Your task to perform on an android device: turn on notifications settings in the gmail app Image 0: 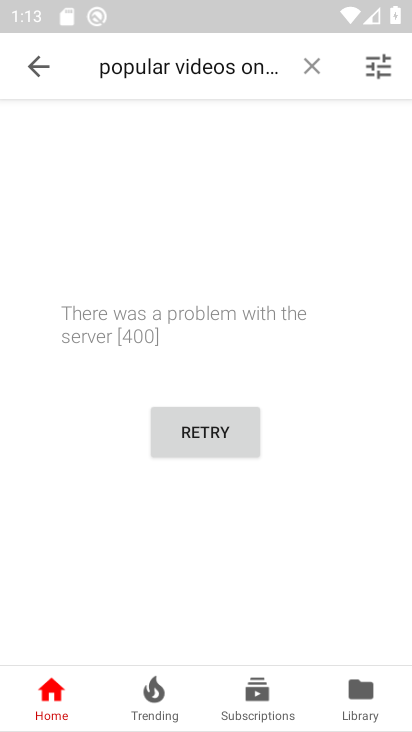
Step 0: press home button
Your task to perform on an android device: turn on notifications settings in the gmail app Image 1: 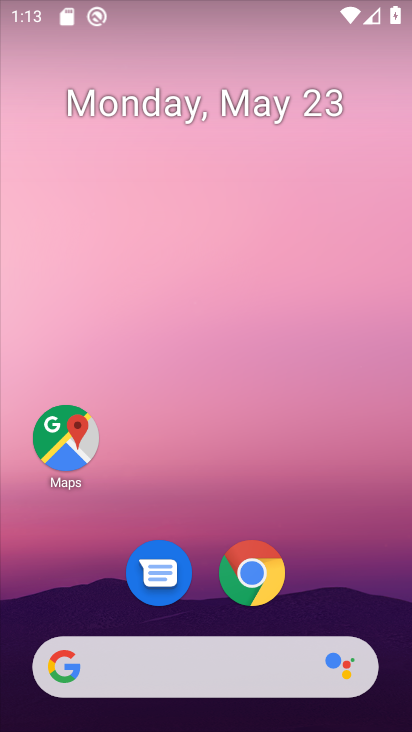
Step 1: drag from (317, 598) to (318, 53)
Your task to perform on an android device: turn on notifications settings in the gmail app Image 2: 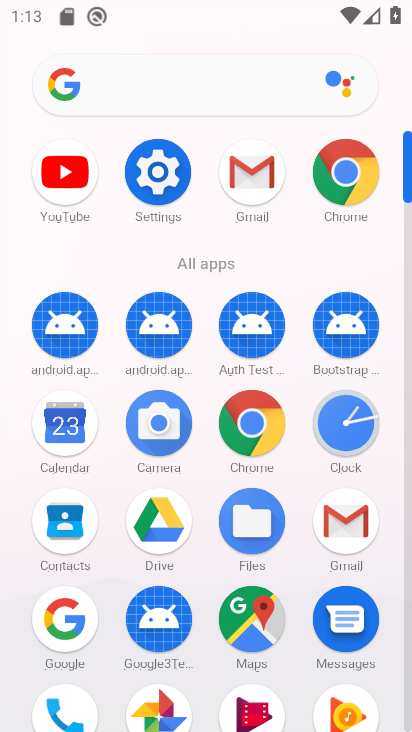
Step 2: click (345, 523)
Your task to perform on an android device: turn on notifications settings in the gmail app Image 3: 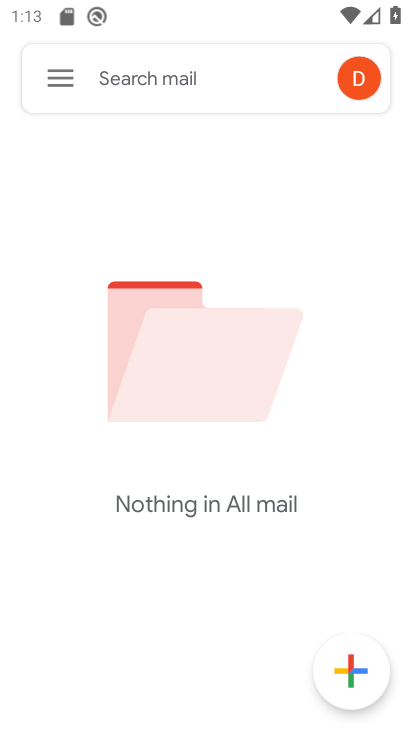
Step 3: click (67, 71)
Your task to perform on an android device: turn on notifications settings in the gmail app Image 4: 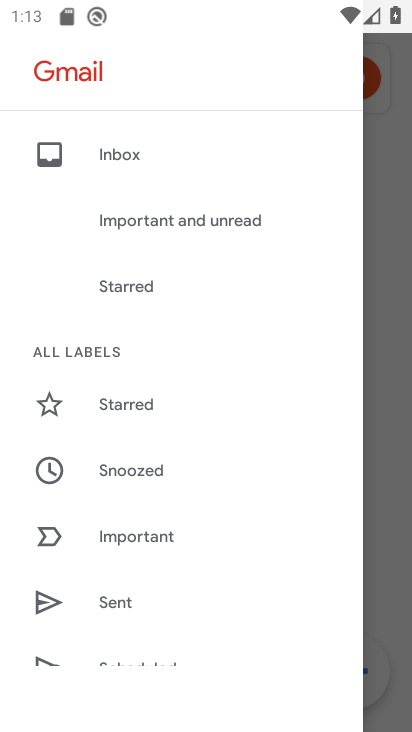
Step 4: drag from (206, 619) to (202, 208)
Your task to perform on an android device: turn on notifications settings in the gmail app Image 5: 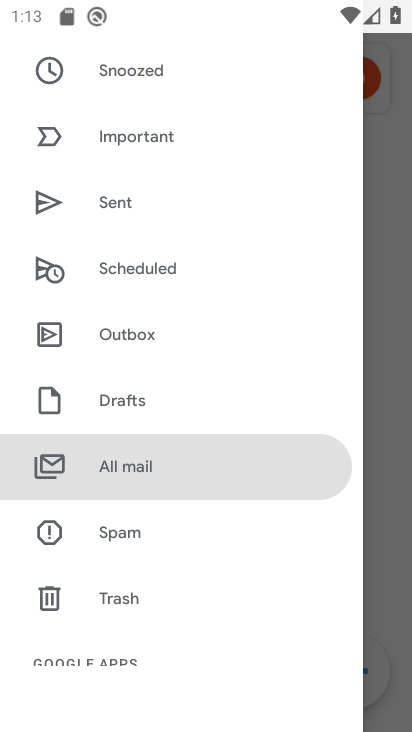
Step 5: drag from (220, 571) to (209, 228)
Your task to perform on an android device: turn on notifications settings in the gmail app Image 6: 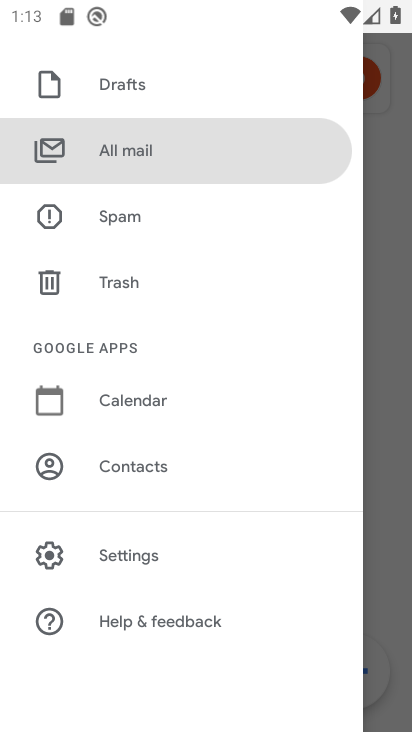
Step 6: click (139, 554)
Your task to perform on an android device: turn on notifications settings in the gmail app Image 7: 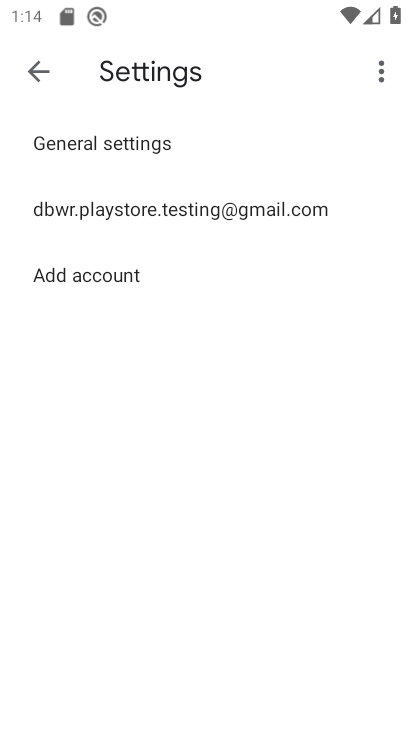
Step 7: click (185, 144)
Your task to perform on an android device: turn on notifications settings in the gmail app Image 8: 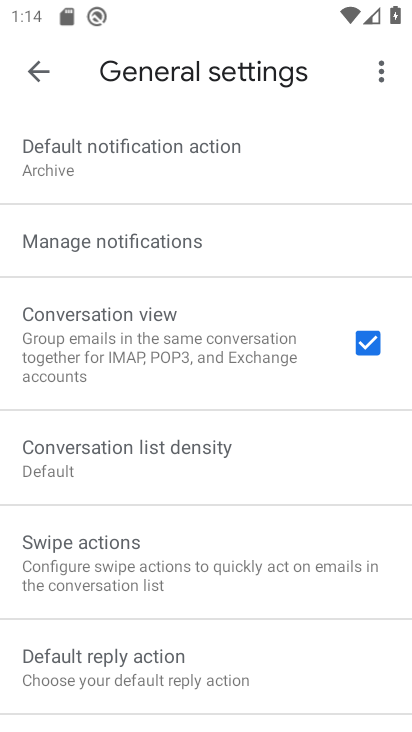
Step 8: click (111, 240)
Your task to perform on an android device: turn on notifications settings in the gmail app Image 9: 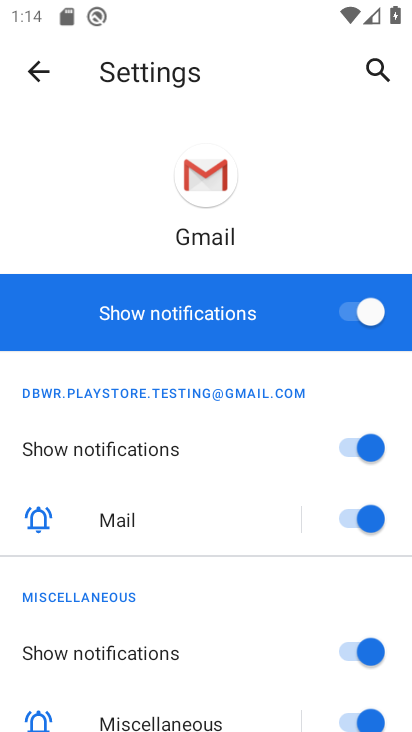
Step 9: task complete